Your task to perform on an android device: See recent photos Image 0: 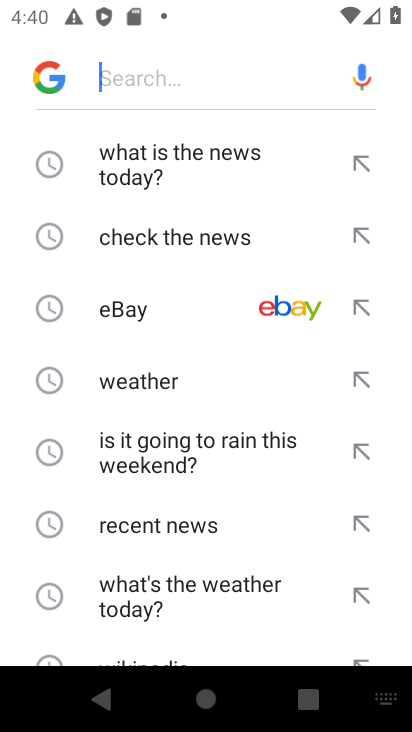
Step 0: press home button
Your task to perform on an android device: See recent photos Image 1: 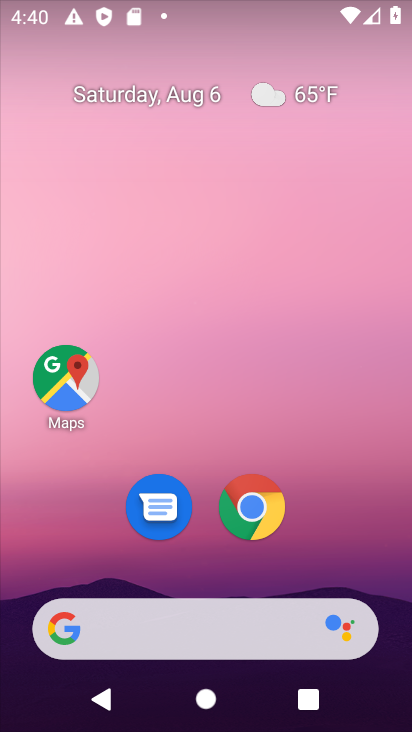
Step 1: drag from (230, 449) to (315, 94)
Your task to perform on an android device: See recent photos Image 2: 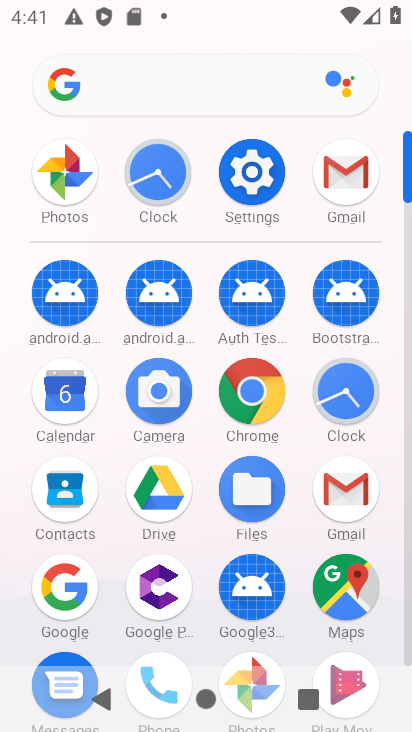
Step 2: click (250, 659)
Your task to perform on an android device: See recent photos Image 3: 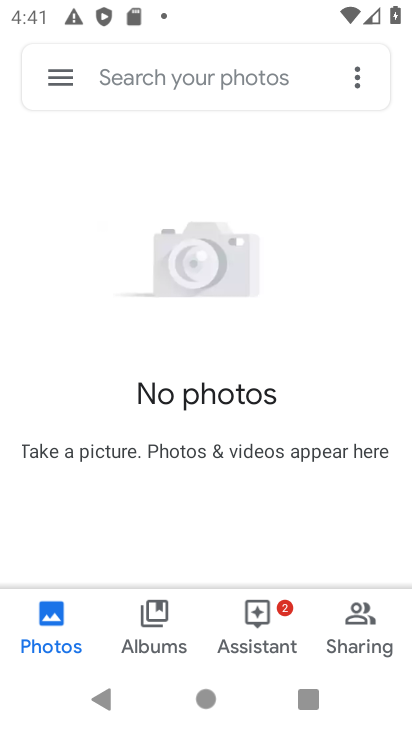
Step 3: task complete